Your task to perform on an android device: change alarm snooze length Image 0: 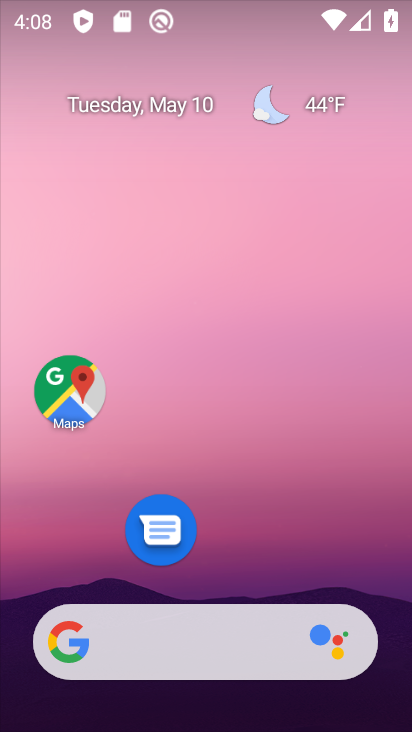
Step 0: drag from (206, 532) to (274, 88)
Your task to perform on an android device: change alarm snooze length Image 1: 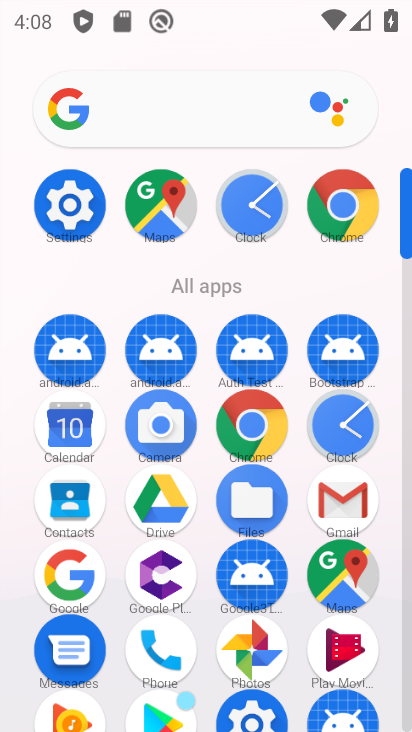
Step 1: click (228, 203)
Your task to perform on an android device: change alarm snooze length Image 2: 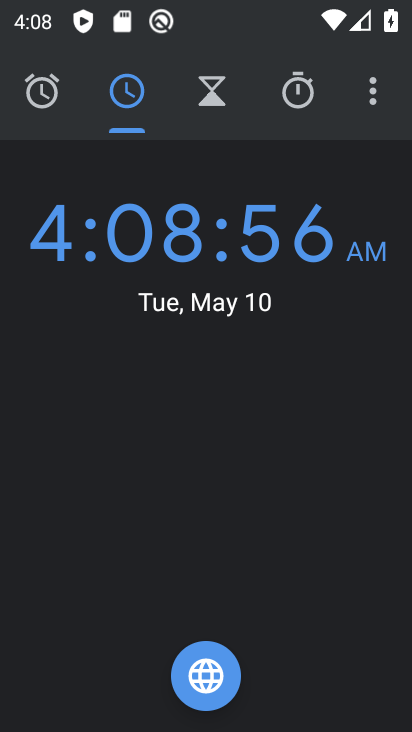
Step 2: click (363, 78)
Your task to perform on an android device: change alarm snooze length Image 3: 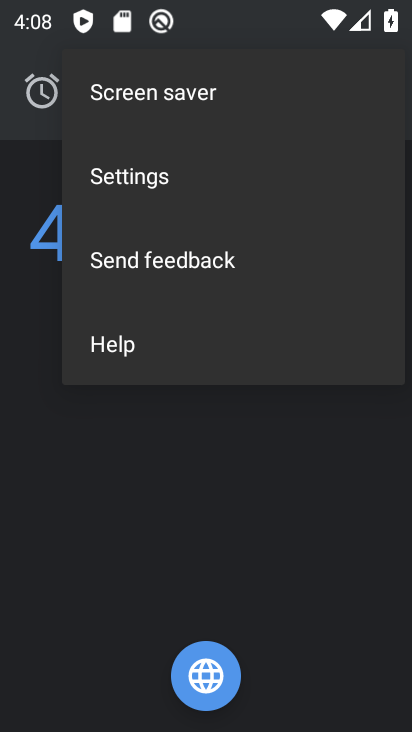
Step 3: click (159, 178)
Your task to perform on an android device: change alarm snooze length Image 4: 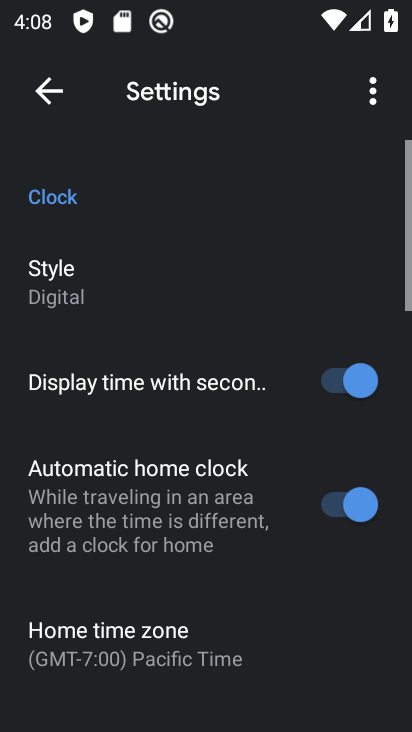
Step 4: drag from (170, 617) to (229, 92)
Your task to perform on an android device: change alarm snooze length Image 5: 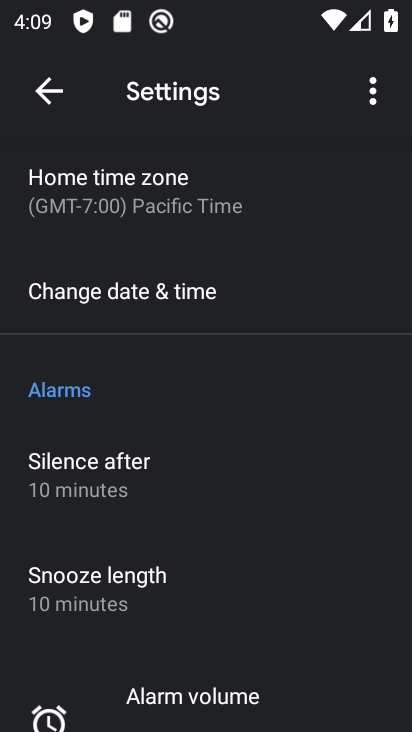
Step 5: click (115, 593)
Your task to perform on an android device: change alarm snooze length Image 6: 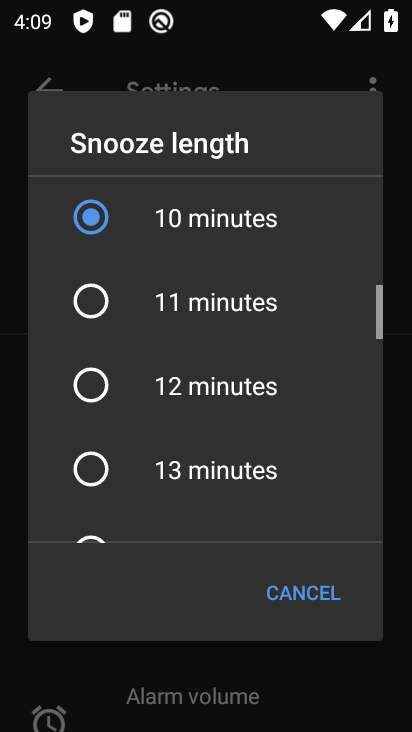
Step 6: click (98, 305)
Your task to perform on an android device: change alarm snooze length Image 7: 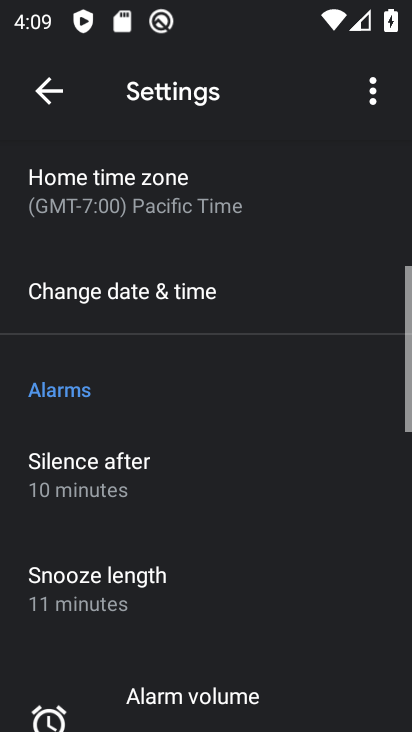
Step 7: task complete